Your task to perform on an android device: turn off notifications in google photos Image 0: 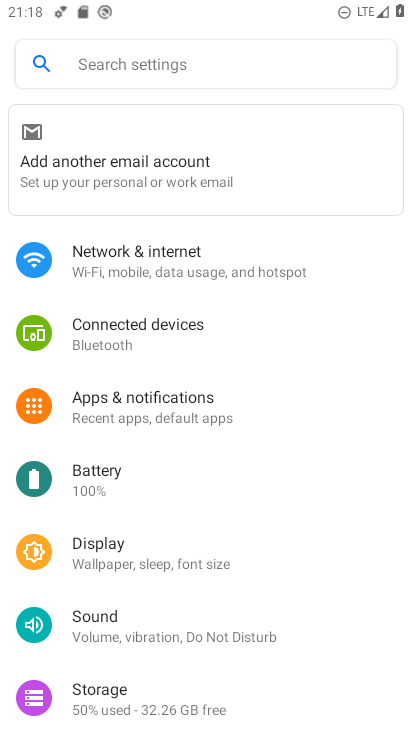
Step 0: drag from (253, 445) to (304, 193)
Your task to perform on an android device: turn off notifications in google photos Image 1: 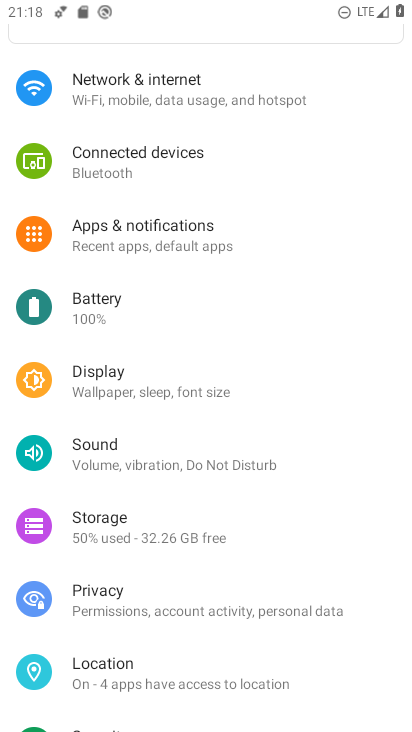
Step 1: press home button
Your task to perform on an android device: turn off notifications in google photos Image 2: 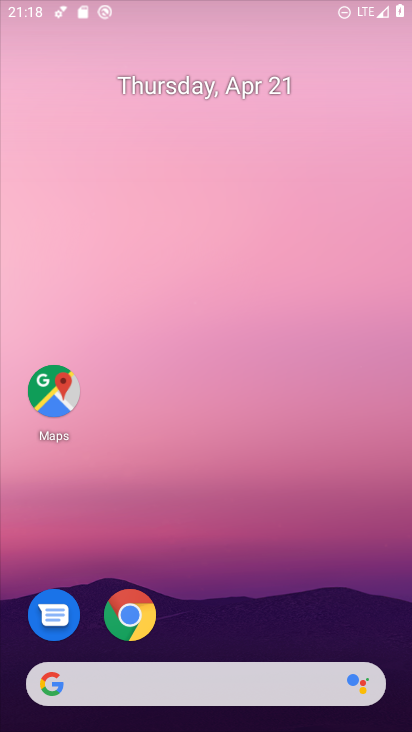
Step 2: drag from (193, 627) to (308, 123)
Your task to perform on an android device: turn off notifications in google photos Image 3: 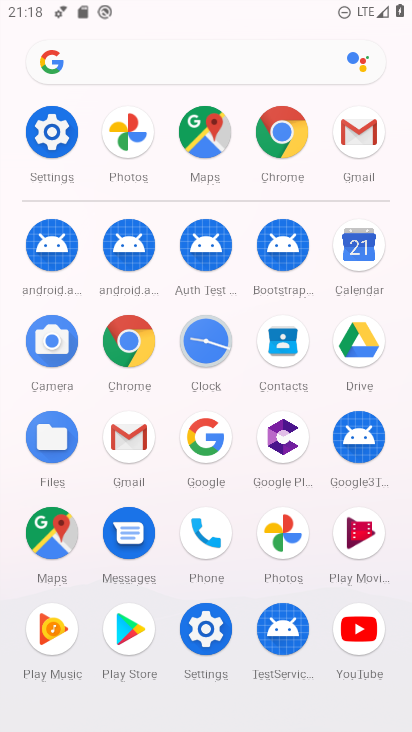
Step 3: click (278, 539)
Your task to perform on an android device: turn off notifications in google photos Image 4: 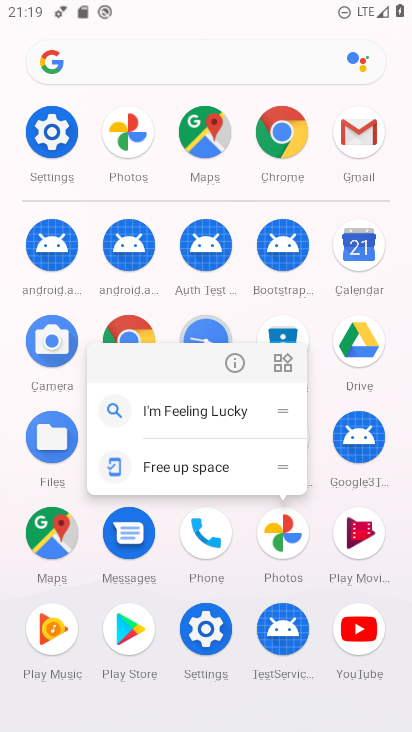
Step 4: click (229, 369)
Your task to perform on an android device: turn off notifications in google photos Image 5: 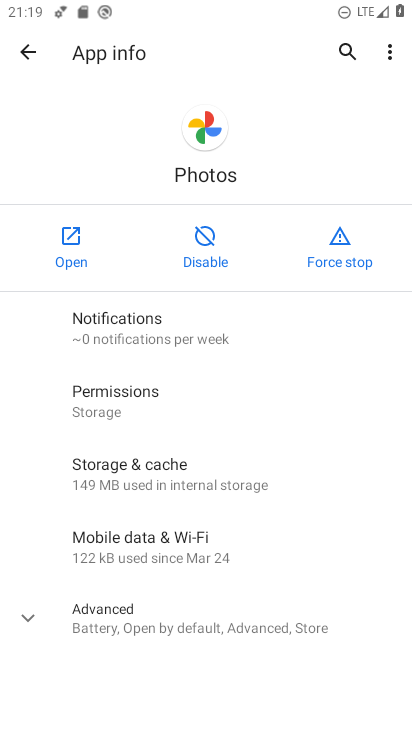
Step 5: click (75, 247)
Your task to perform on an android device: turn off notifications in google photos Image 6: 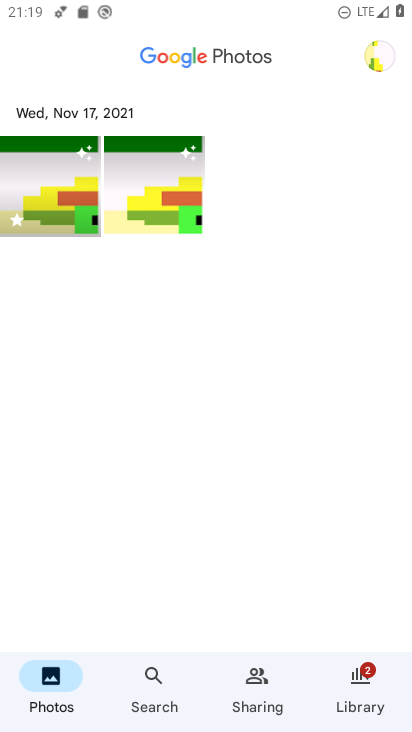
Step 6: click (380, 56)
Your task to perform on an android device: turn off notifications in google photos Image 7: 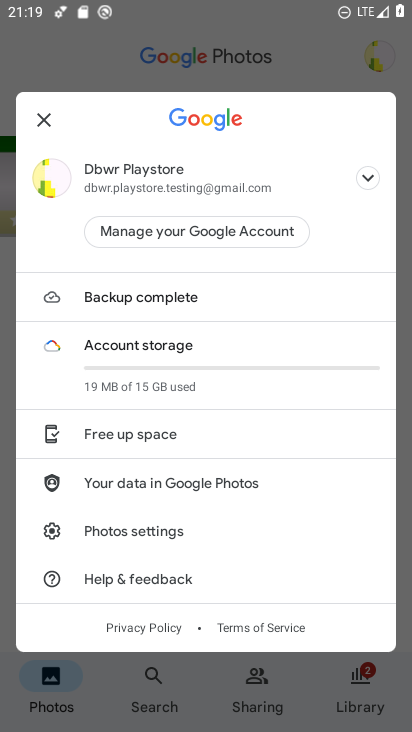
Step 7: click (141, 529)
Your task to perform on an android device: turn off notifications in google photos Image 8: 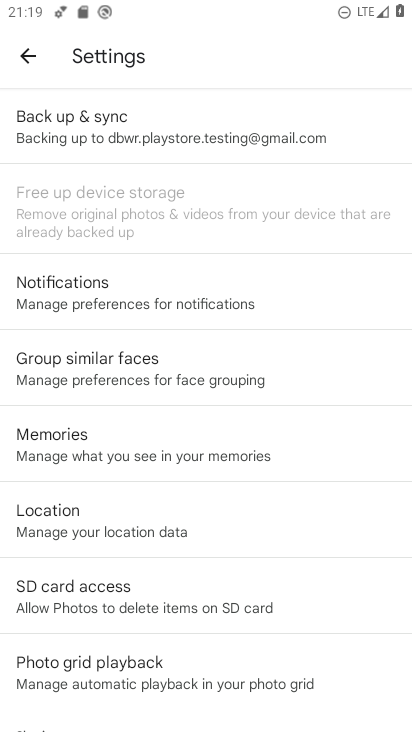
Step 8: drag from (206, 567) to (222, 246)
Your task to perform on an android device: turn off notifications in google photos Image 9: 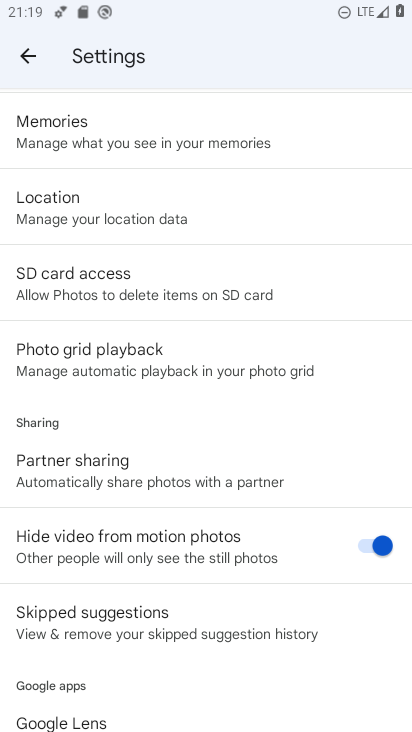
Step 9: drag from (174, 176) to (235, 730)
Your task to perform on an android device: turn off notifications in google photos Image 10: 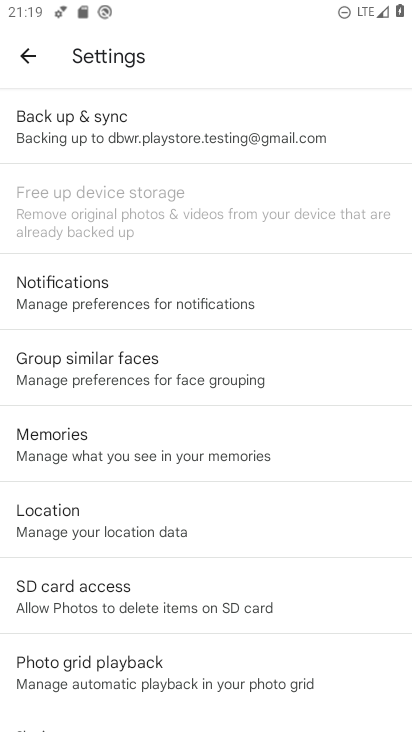
Step 10: click (106, 302)
Your task to perform on an android device: turn off notifications in google photos Image 11: 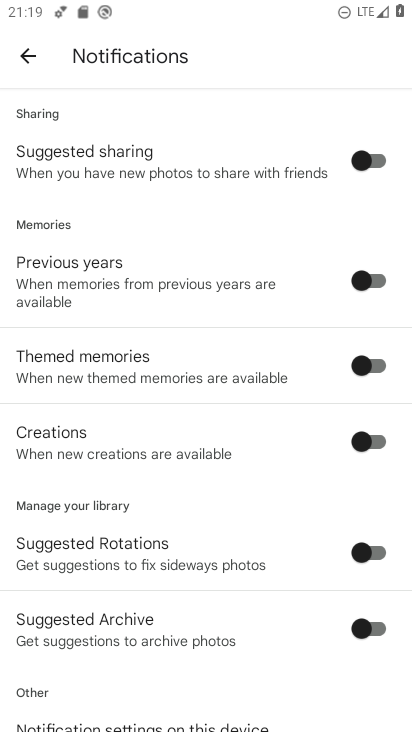
Step 11: drag from (232, 535) to (278, 240)
Your task to perform on an android device: turn off notifications in google photos Image 12: 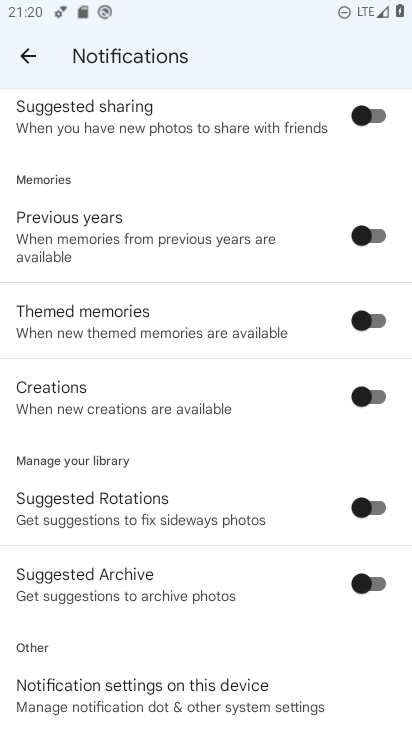
Step 12: click (215, 271)
Your task to perform on an android device: turn off notifications in google photos Image 13: 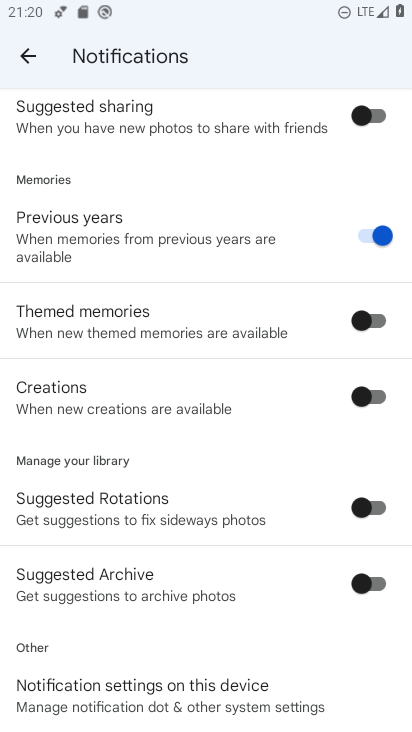
Step 13: drag from (183, 667) to (264, 201)
Your task to perform on an android device: turn off notifications in google photos Image 14: 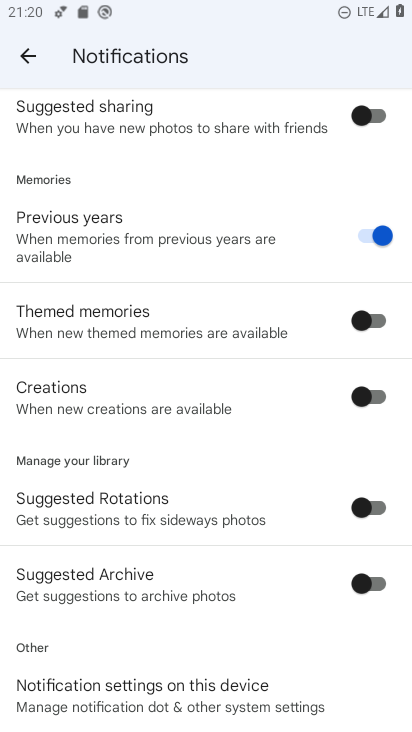
Step 14: drag from (190, 612) to (194, 285)
Your task to perform on an android device: turn off notifications in google photos Image 15: 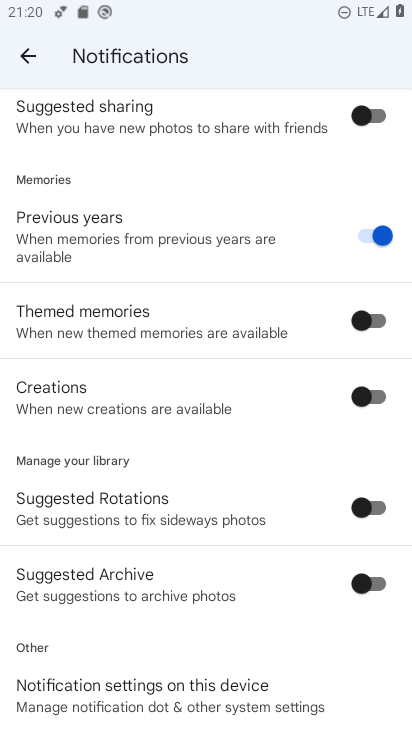
Step 15: drag from (189, 301) to (251, 603)
Your task to perform on an android device: turn off notifications in google photos Image 16: 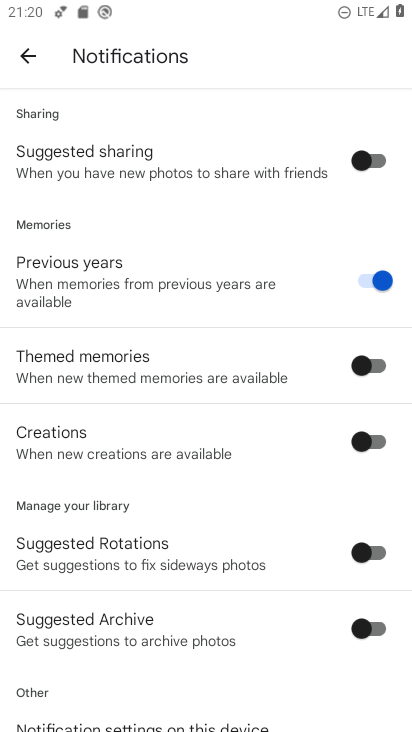
Step 16: drag from (224, 60) to (193, 0)
Your task to perform on an android device: turn off notifications in google photos Image 17: 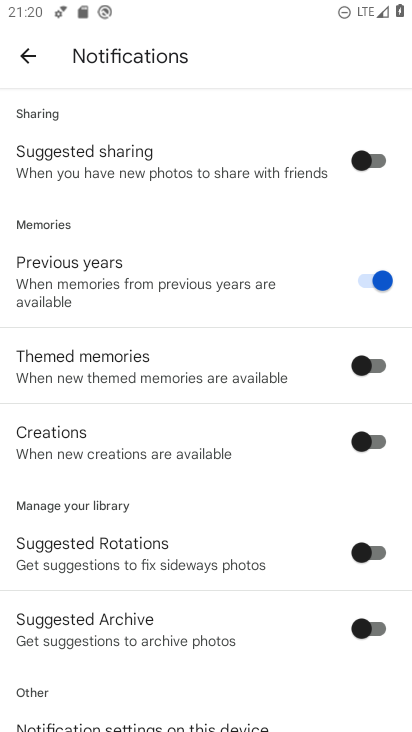
Step 17: drag from (187, 683) to (213, 258)
Your task to perform on an android device: turn off notifications in google photos Image 18: 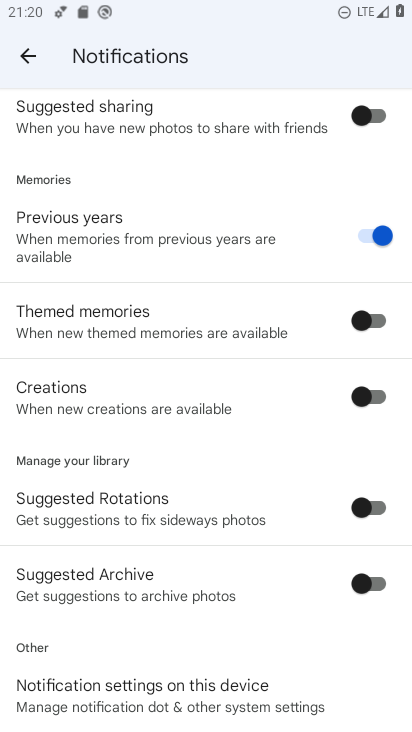
Step 18: click (133, 687)
Your task to perform on an android device: turn off notifications in google photos Image 19: 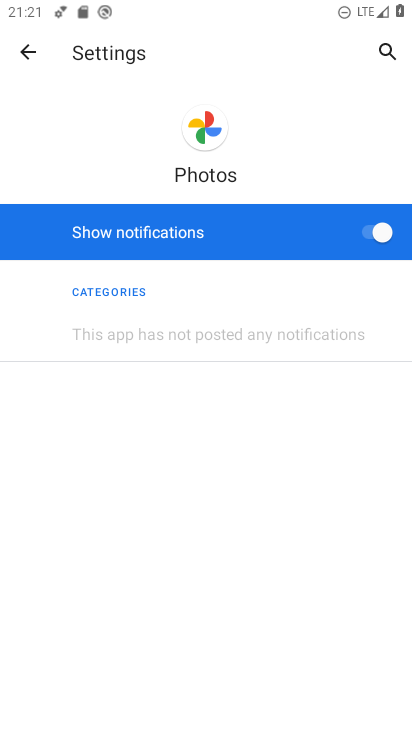
Step 19: click (369, 236)
Your task to perform on an android device: turn off notifications in google photos Image 20: 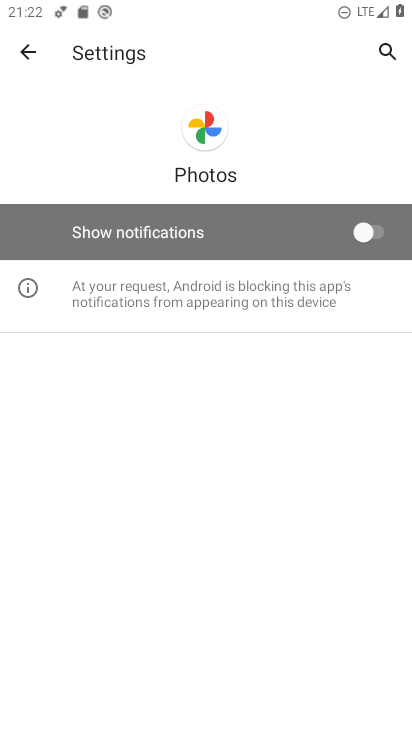
Step 20: task complete